Your task to perform on an android device: What's a good restaurant in New Jersey? Image 0: 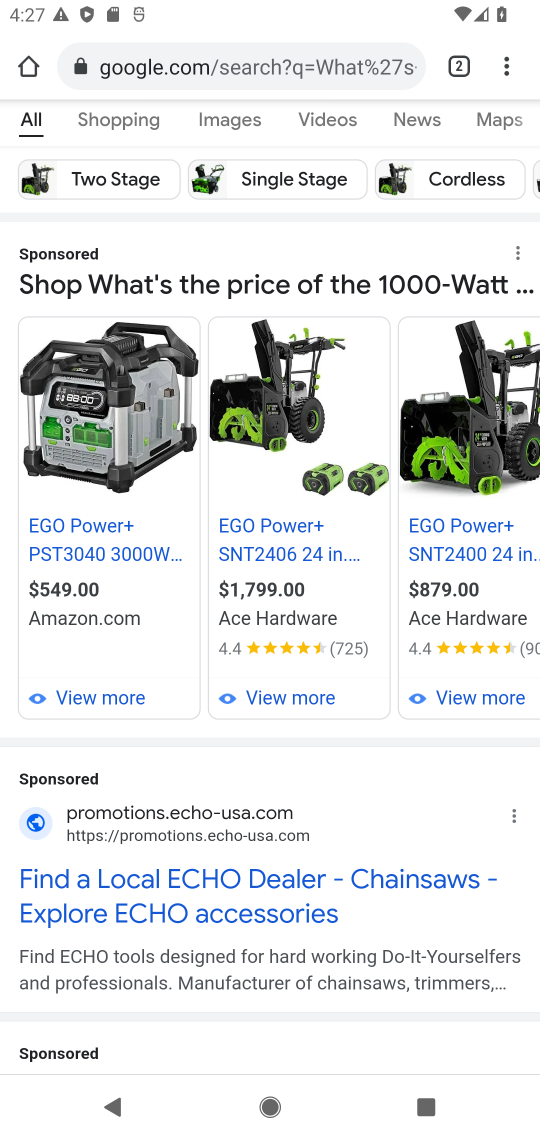
Step 0: click (313, 64)
Your task to perform on an android device: What's a good restaurant in New Jersey? Image 1: 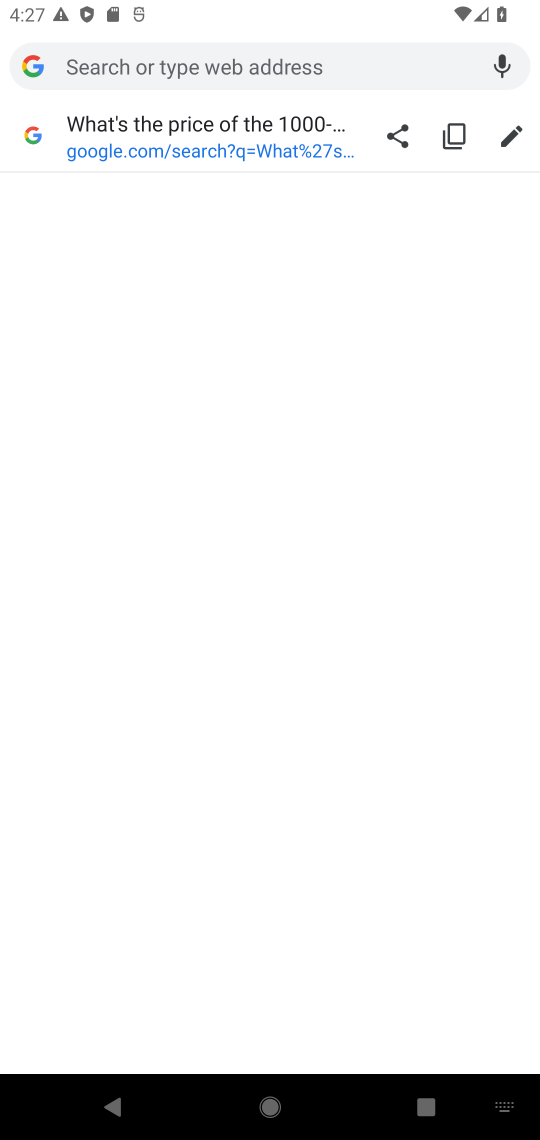
Step 1: type "What's a good restaurant in New Jersey?"
Your task to perform on an android device: What's a good restaurant in New Jersey? Image 2: 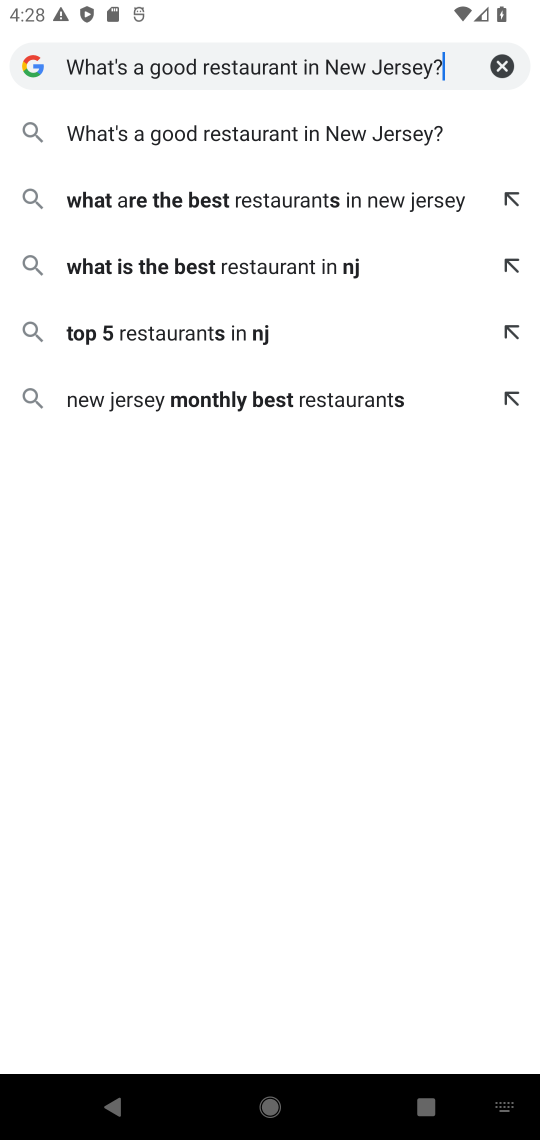
Step 2: press enter
Your task to perform on an android device: What's a good restaurant in New Jersey? Image 3: 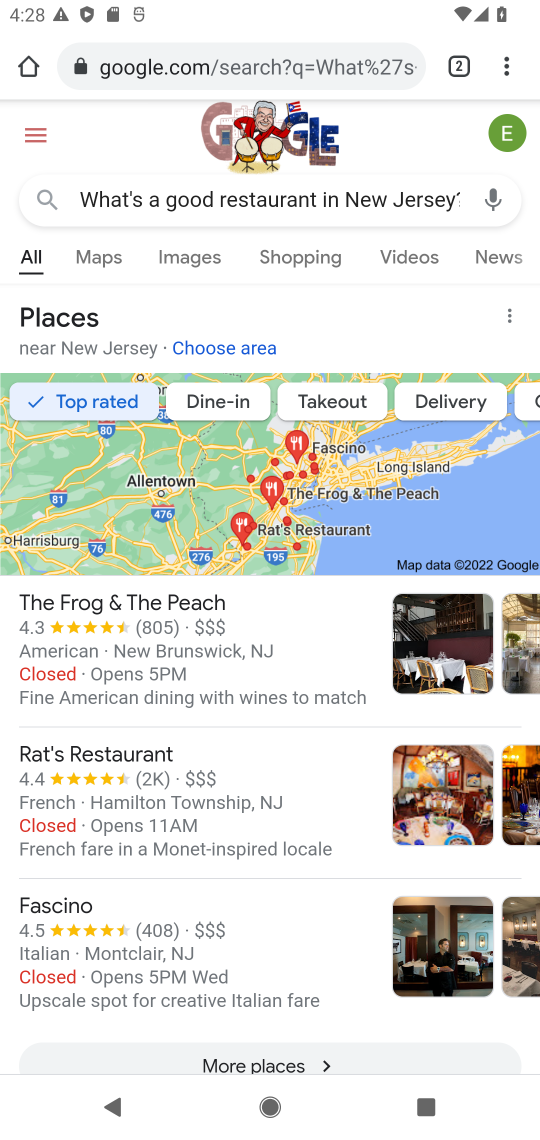
Step 3: task complete